Your task to perform on an android device: manage bookmarks in the chrome app Image 0: 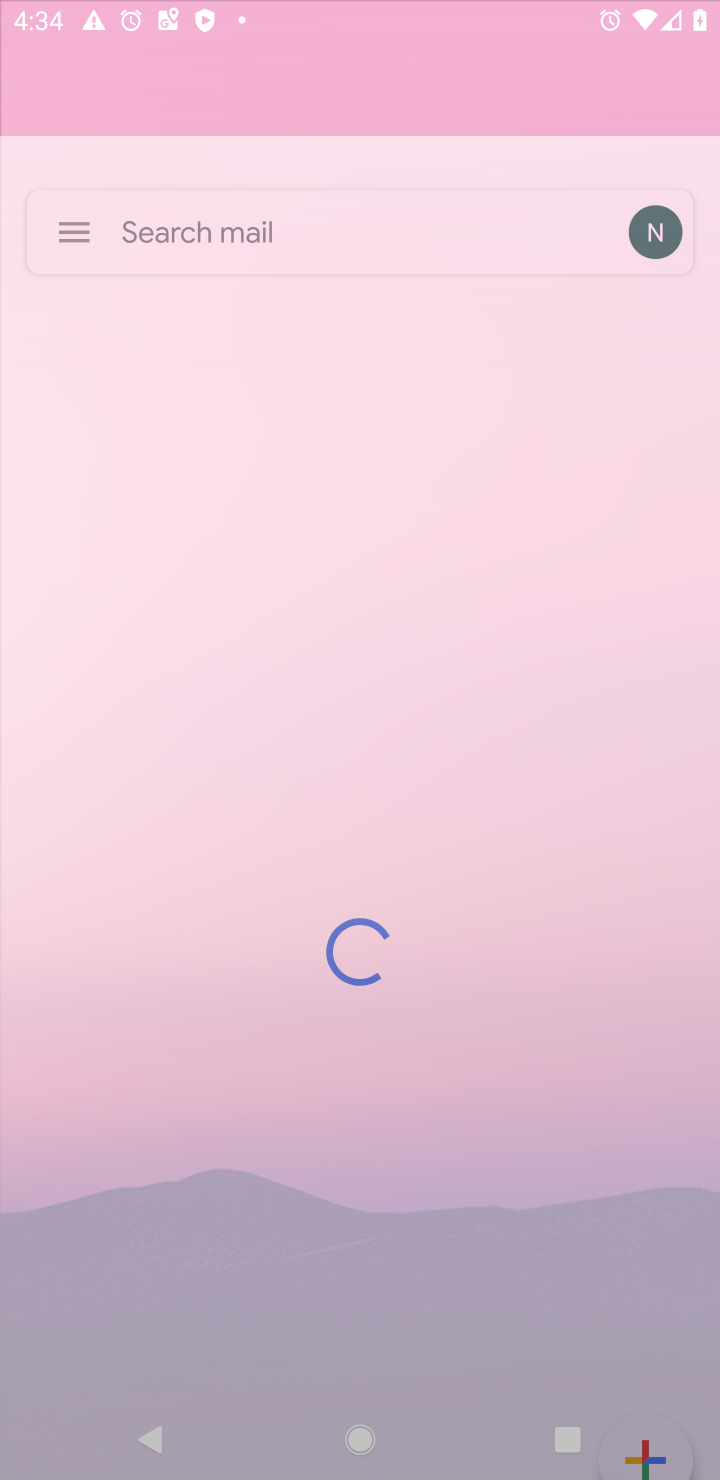
Step 0: press home button
Your task to perform on an android device: manage bookmarks in the chrome app Image 1: 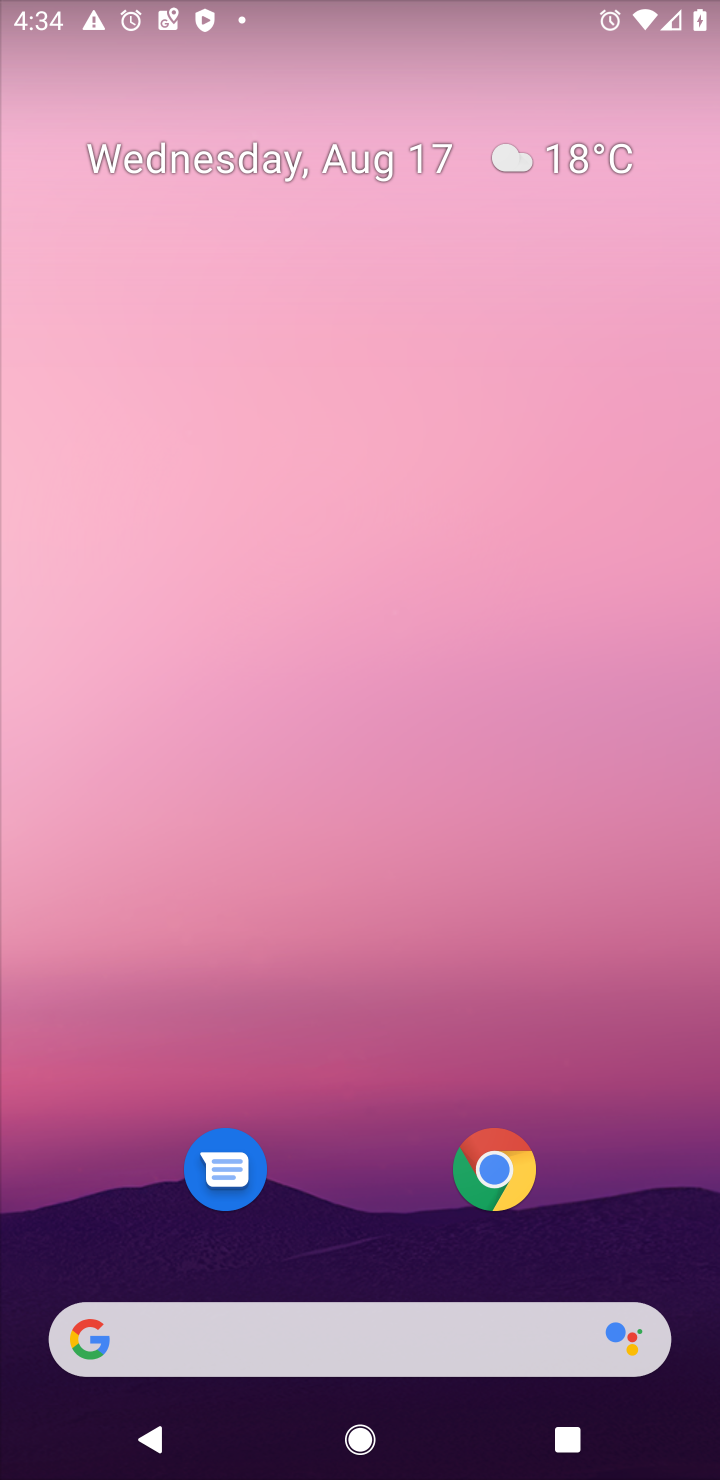
Step 1: drag from (369, 1179) to (545, 210)
Your task to perform on an android device: manage bookmarks in the chrome app Image 2: 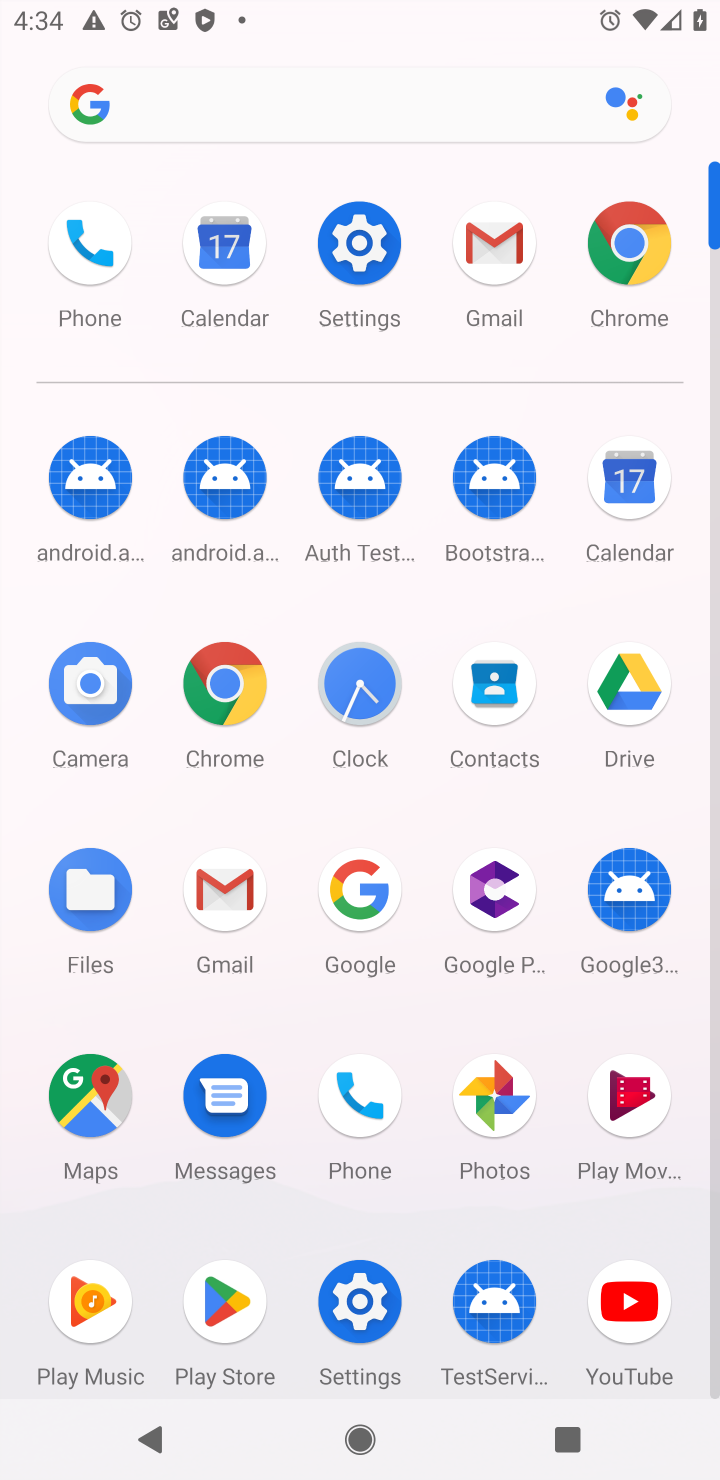
Step 2: click (220, 682)
Your task to perform on an android device: manage bookmarks in the chrome app Image 3: 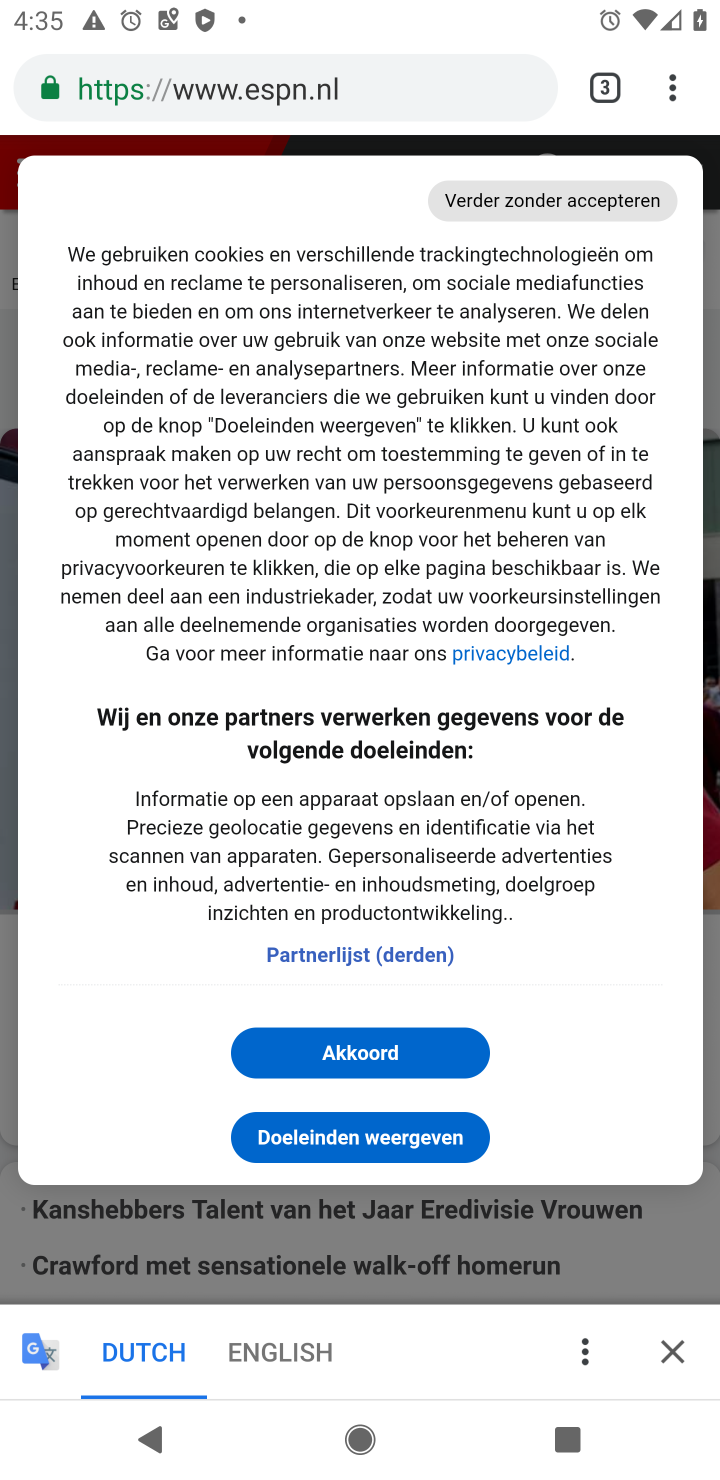
Step 3: click (335, 1045)
Your task to perform on an android device: manage bookmarks in the chrome app Image 4: 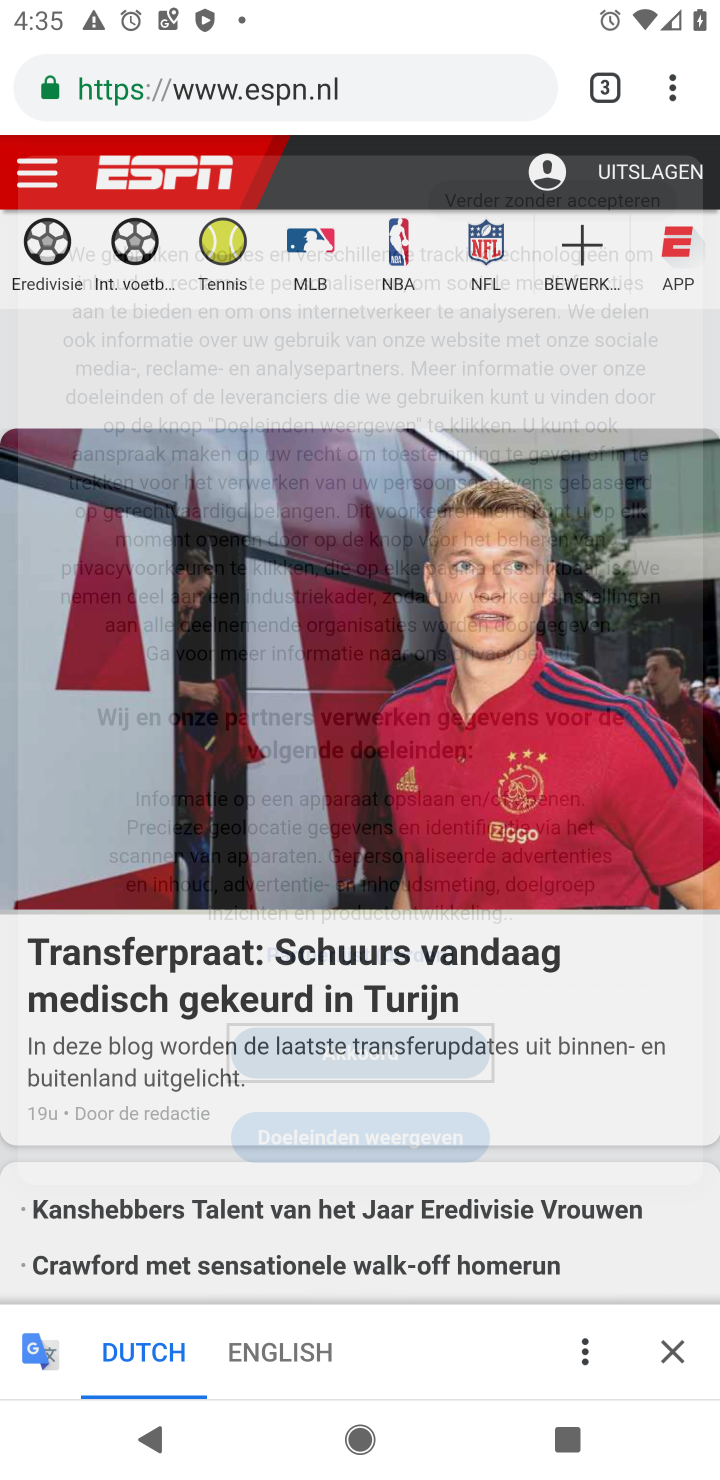
Step 4: task complete